Your task to perform on an android device: turn notification dots on Image 0: 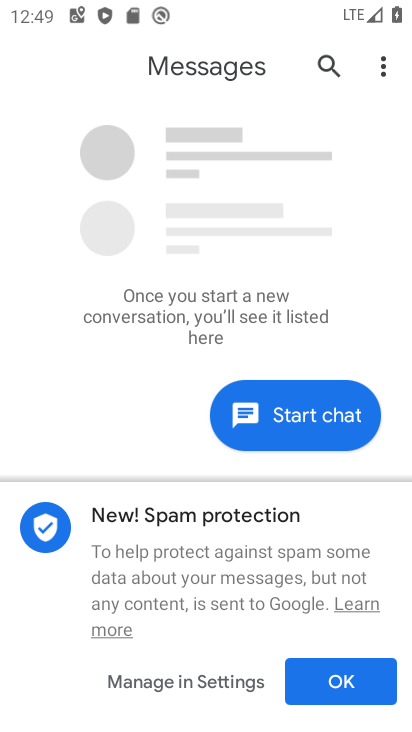
Step 0: press home button
Your task to perform on an android device: turn notification dots on Image 1: 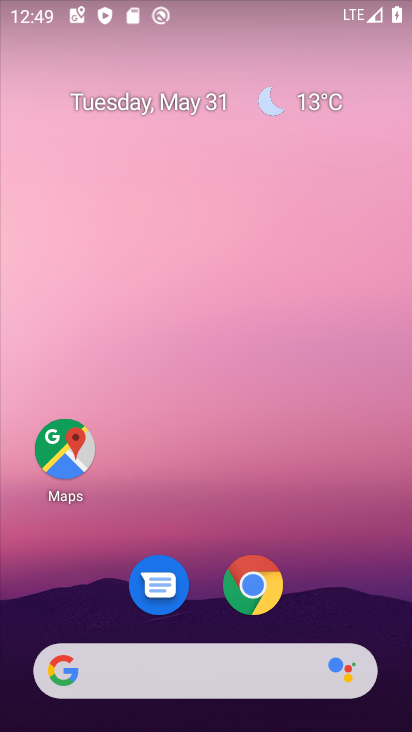
Step 1: drag from (247, 509) to (241, 9)
Your task to perform on an android device: turn notification dots on Image 2: 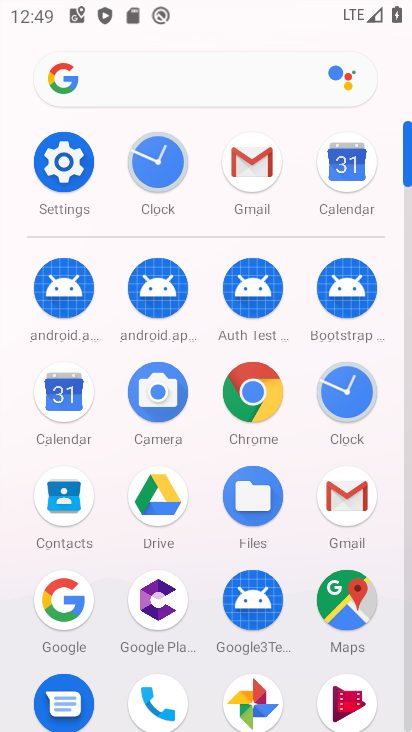
Step 2: click (69, 146)
Your task to perform on an android device: turn notification dots on Image 3: 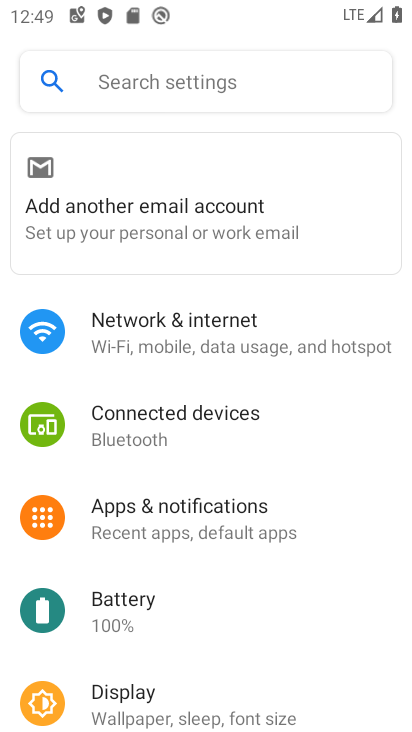
Step 3: click (194, 526)
Your task to perform on an android device: turn notification dots on Image 4: 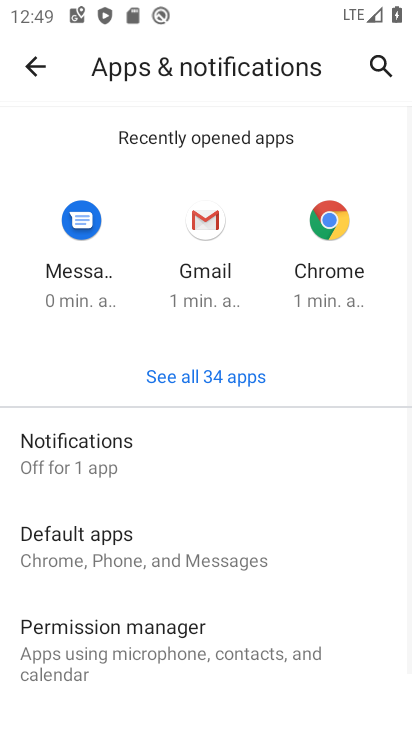
Step 4: click (223, 461)
Your task to perform on an android device: turn notification dots on Image 5: 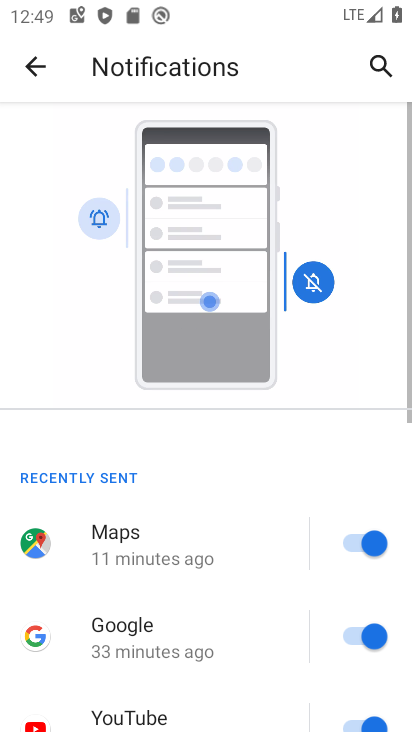
Step 5: drag from (245, 579) to (290, 97)
Your task to perform on an android device: turn notification dots on Image 6: 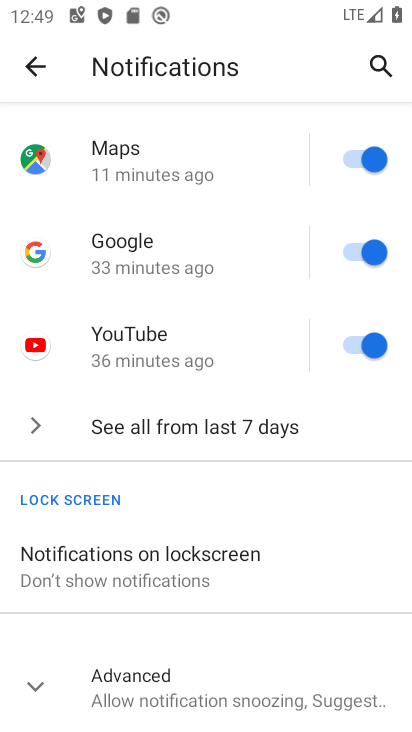
Step 6: click (35, 682)
Your task to perform on an android device: turn notification dots on Image 7: 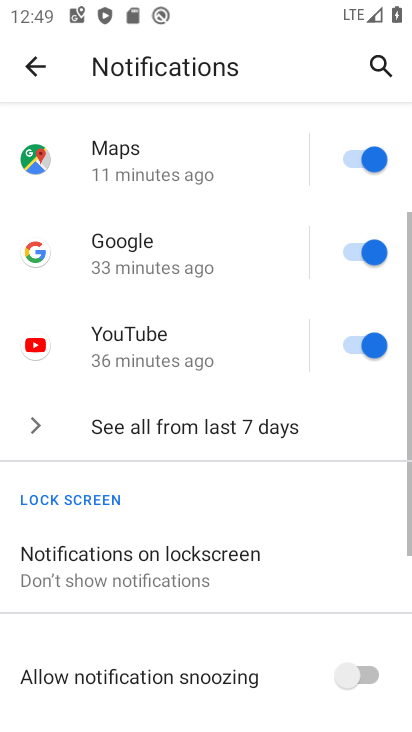
Step 7: task complete